Your task to perform on an android device: Toggle the flashlight Image 0: 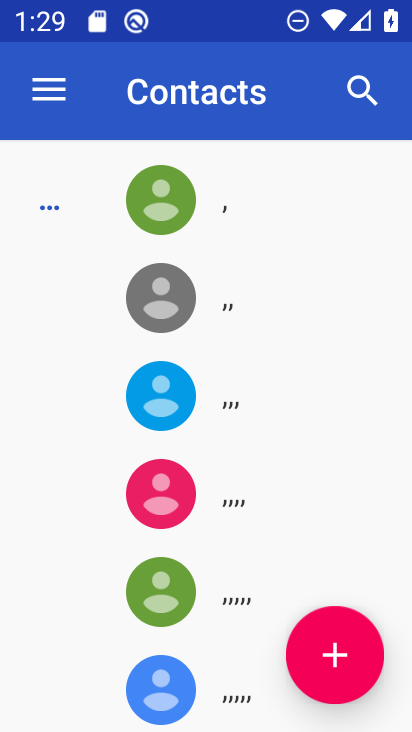
Step 0: press home button
Your task to perform on an android device: Toggle the flashlight Image 1: 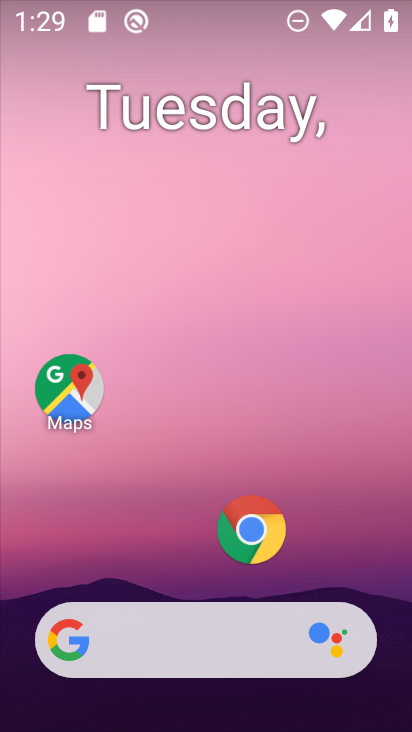
Step 1: drag from (273, 475) to (312, 237)
Your task to perform on an android device: Toggle the flashlight Image 2: 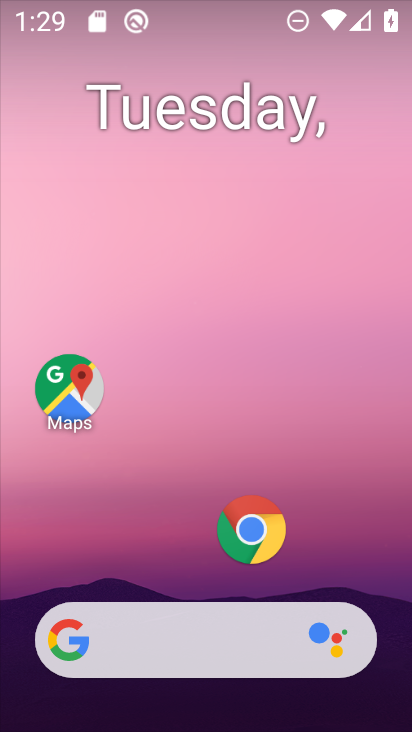
Step 2: drag from (172, 644) to (340, 23)
Your task to perform on an android device: Toggle the flashlight Image 3: 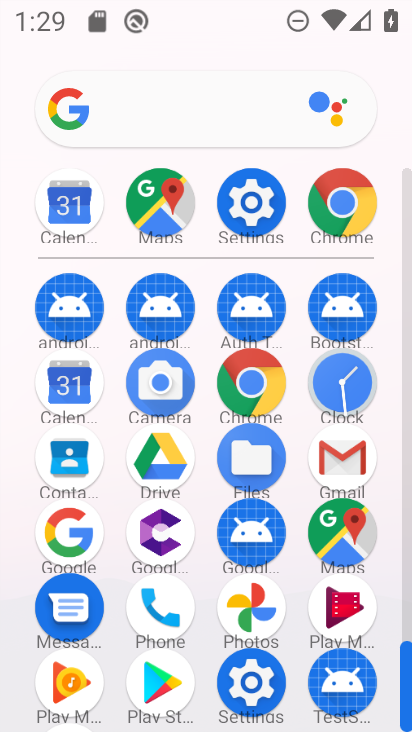
Step 3: click (264, 208)
Your task to perform on an android device: Toggle the flashlight Image 4: 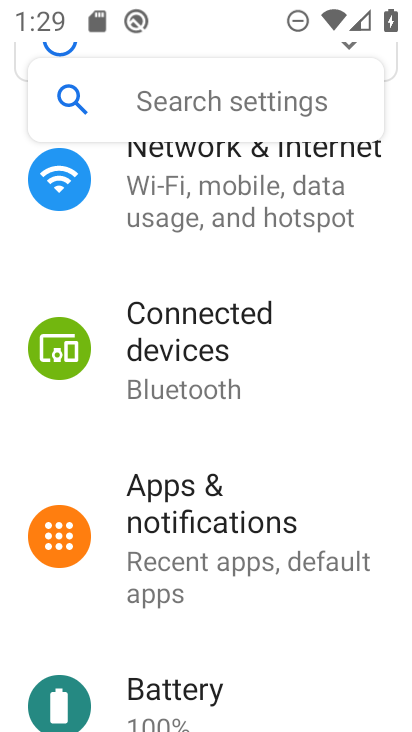
Step 4: click (137, 91)
Your task to perform on an android device: Toggle the flashlight Image 5: 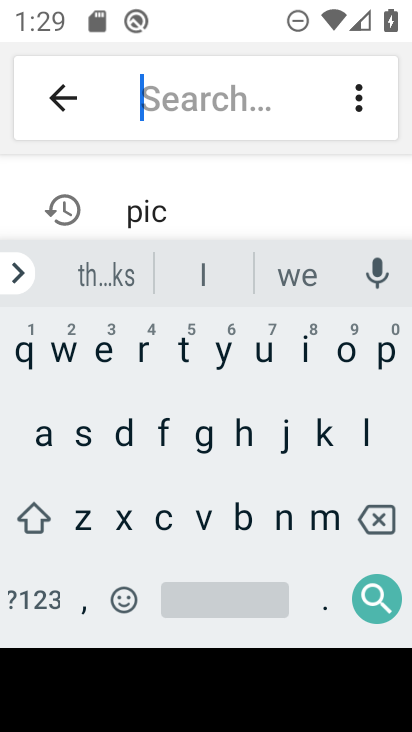
Step 5: click (164, 429)
Your task to perform on an android device: Toggle the flashlight Image 6: 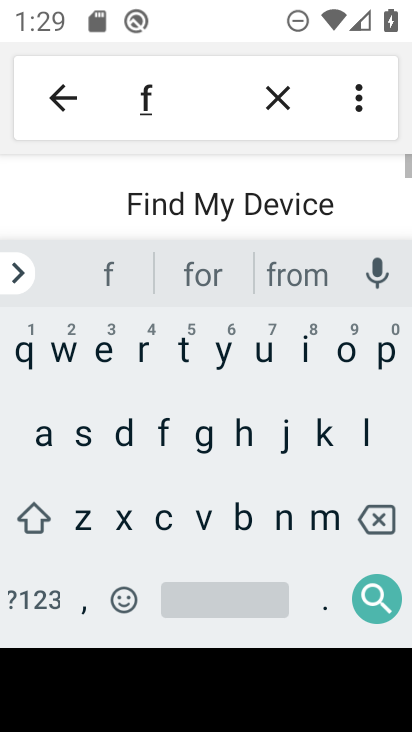
Step 6: click (367, 430)
Your task to perform on an android device: Toggle the flashlight Image 7: 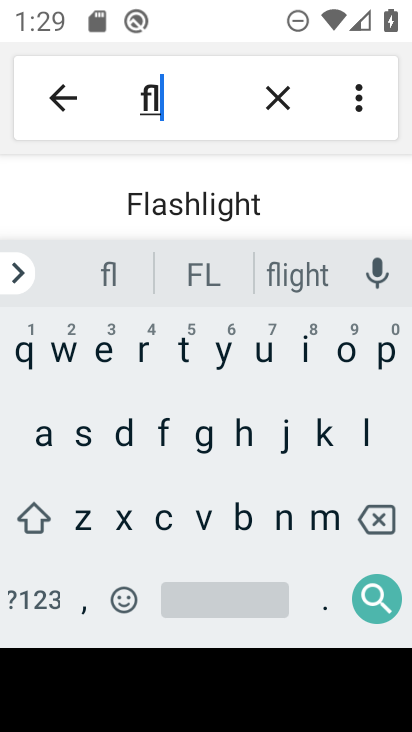
Step 7: click (207, 199)
Your task to perform on an android device: Toggle the flashlight Image 8: 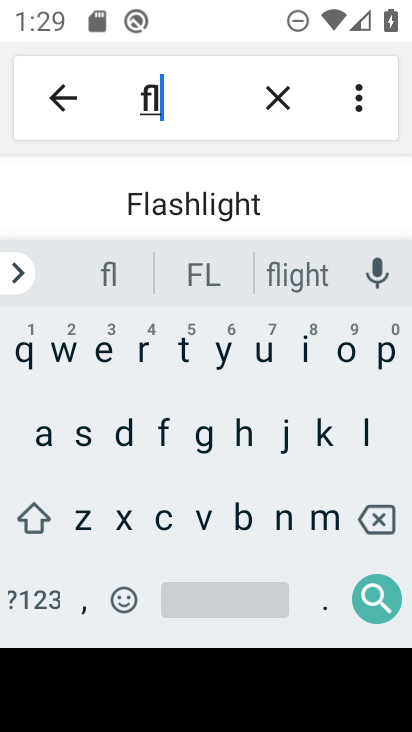
Step 8: task complete